Your task to perform on an android device: turn off smart reply in the gmail app Image 0: 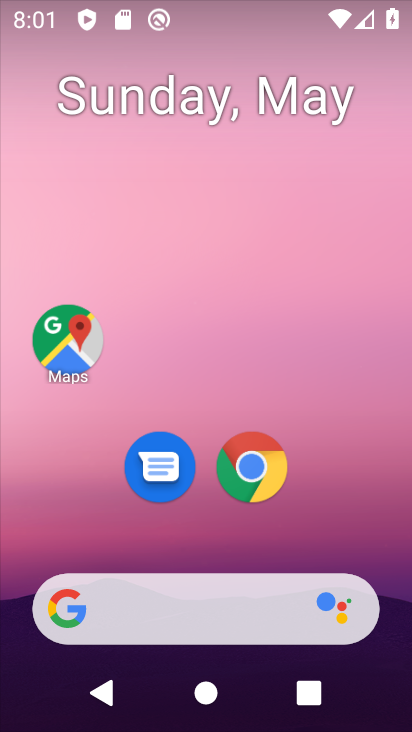
Step 0: drag from (228, 532) to (237, 65)
Your task to perform on an android device: turn off smart reply in the gmail app Image 1: 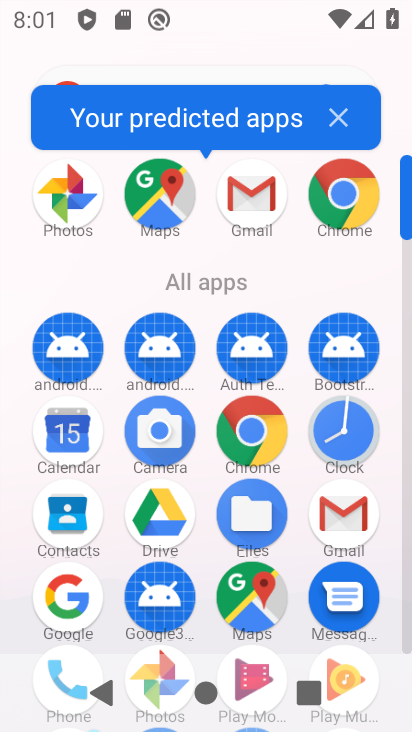
Step 1: click (345, 524)
Your task to perform on an android device: turn off smart reply in the gmail app Image 2: 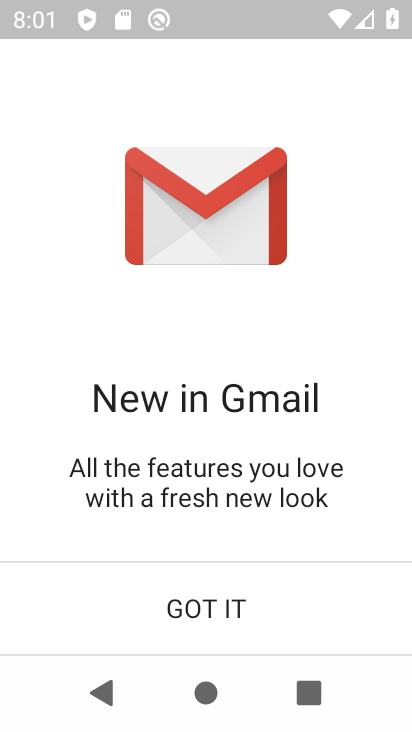
Step 2: click (245, 627)
Your task to perform on an android device: turn off smart reply in the gmail app Image 3: 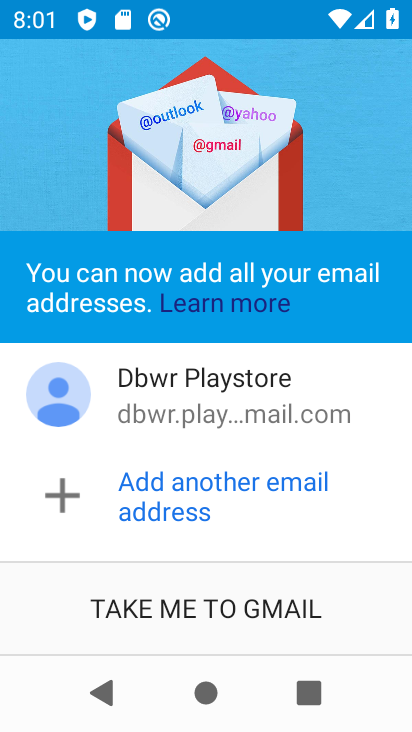
Step 3: click (245, 627)
Your task to perform on an android device: turn off smart reply in the gmail app Image 4: 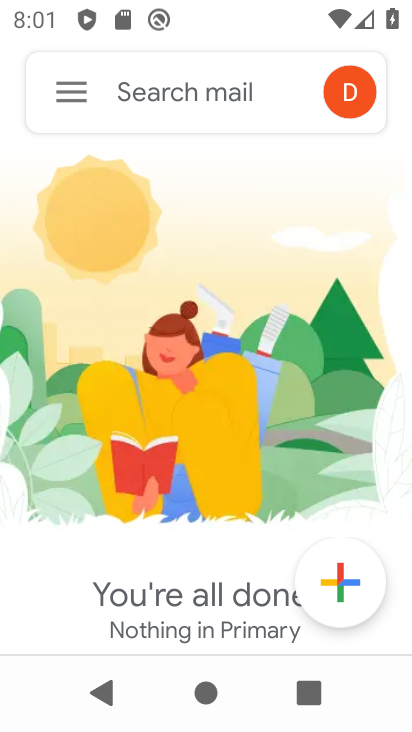
Step 4: click (94, 105)
Your task to perform on an android device: turn off smart reply in the gmail app Image 5: 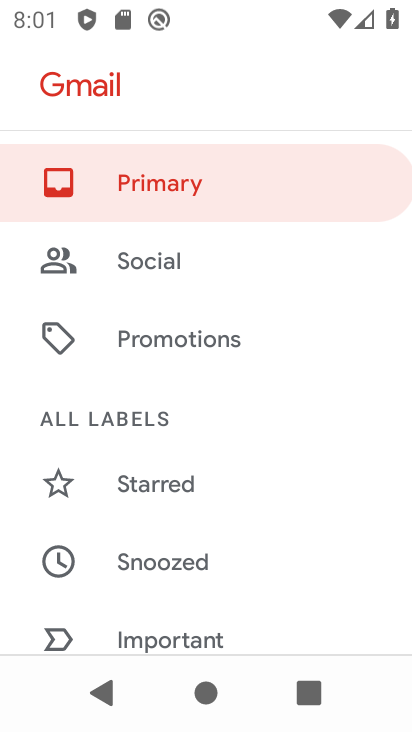
Step 5: drag from (75, 622) to (175, 177)
Your task to perform on an android device: turn off smart reply in the gmail app Image 6: 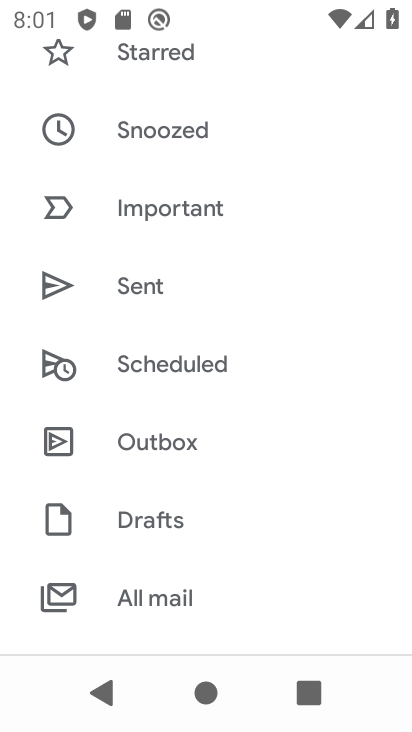
Step 6: drag from (114, 567) to (158, 32)
Your task to perform on an android device: turn off smart reply in the gmail app Image 7: 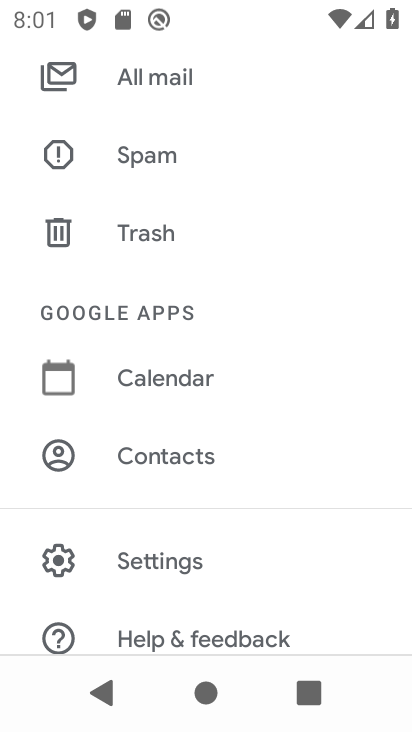
Step 7: click (178, 558)
Your task to perform on an android device: turn off smart reply in the gmail app Image 8: 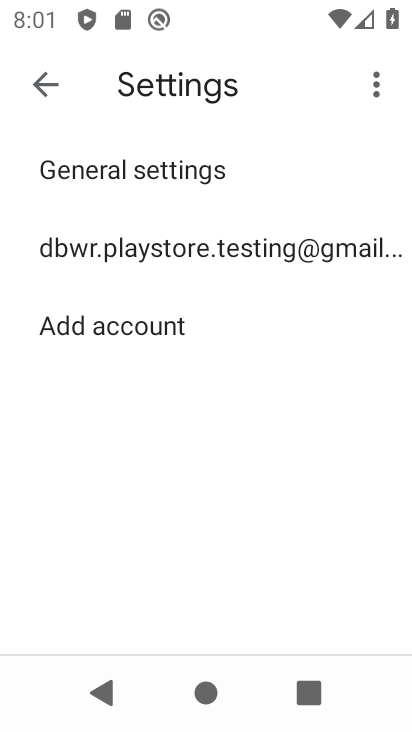
Step 8: click (289, 238)
Your task to perform on an android device: turn off smart reply in the gmail app Image 9: 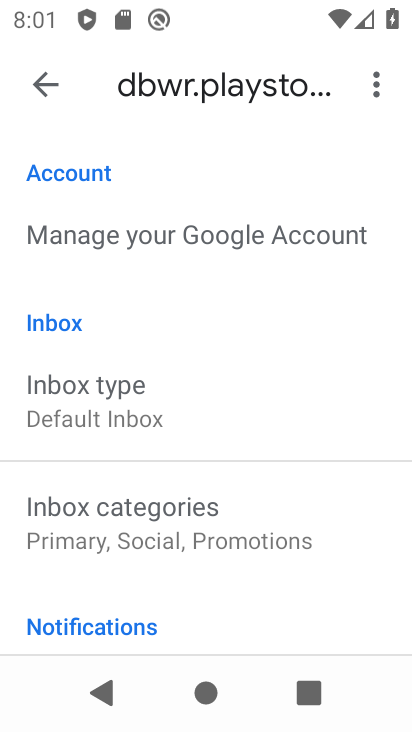
Step 9: drag from (200, 640) to (293, 150)
Your task to perform on an android device: turn off smart reply in the gmail app Image 10: 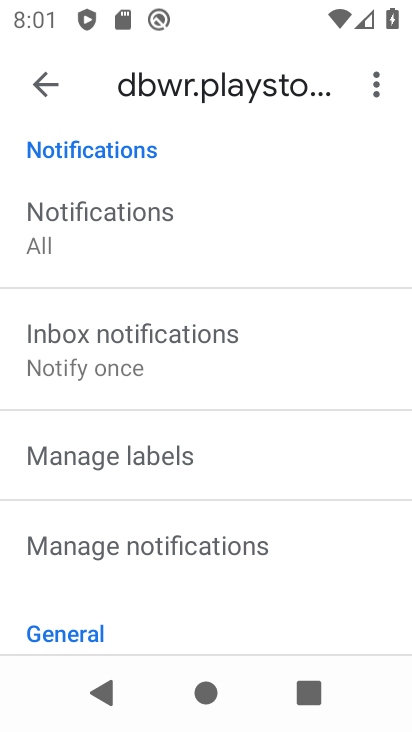
Step 10: drag from (223, 582) to (236, 155)
Your task to perform on an android device: turn off smart reply in the gmail app Image 11: 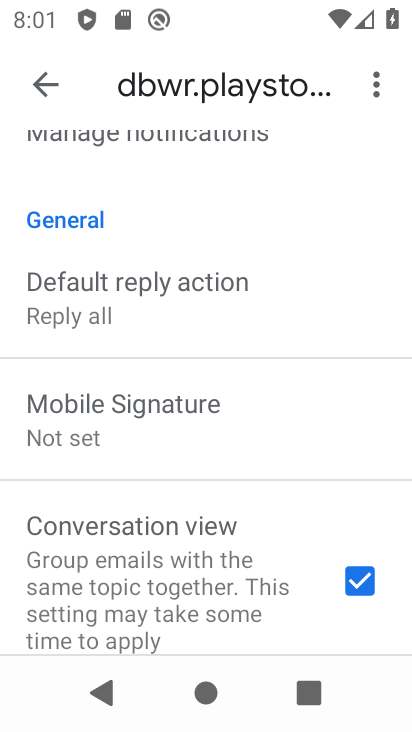
Step 11: drag from (213, 561) to (298, 154)
Your task to perform on an android device: turn off smart reply in the gmail app Image 12: 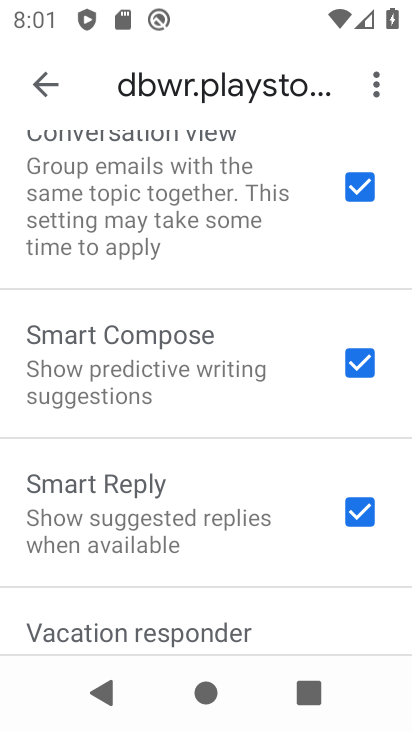
Step 12: click (359, 516)
Your task to perform on an android device: turn off smart reply in the gmail app Image 13: 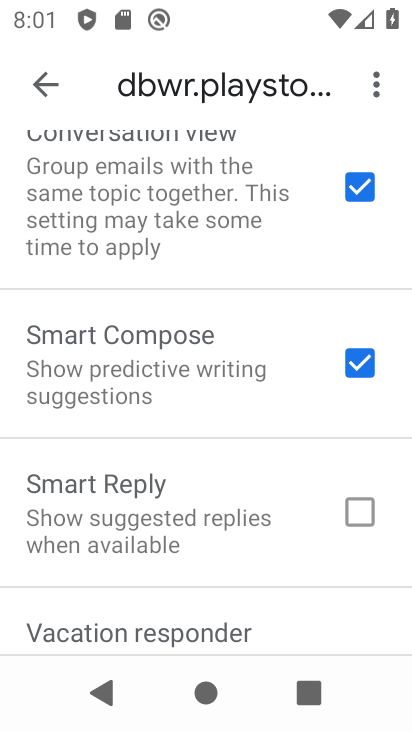
Step 13: task complete